Your task to perform on an android device: open chrome and create a bookmark for the current page Image 0: 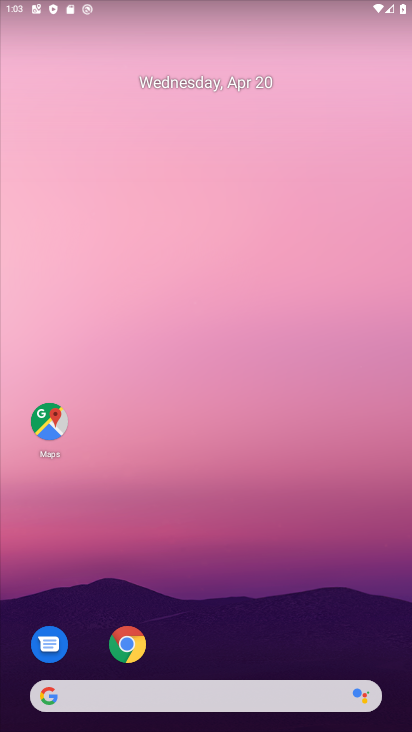
Step 0: click (143, 638)
Your task to perform on an android device: open chrome and create a bookmark for the current page Image 1: 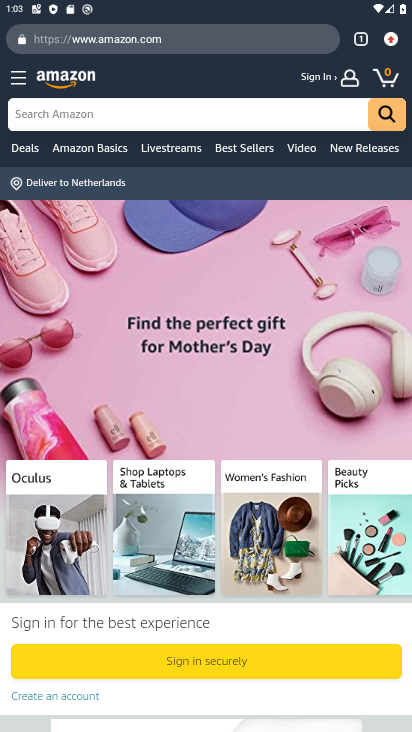
Step 1: click (385, 39)
Your task to perform on an android device: open chrome and create a bookmark for the current page Image 2: 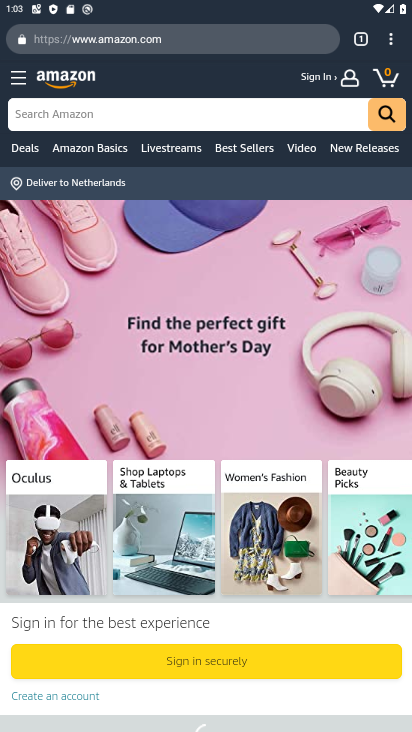
Step 2: click (393, 37)
Your task to perform on an android device: open chrome and create a bookmark for the current page Image 3: 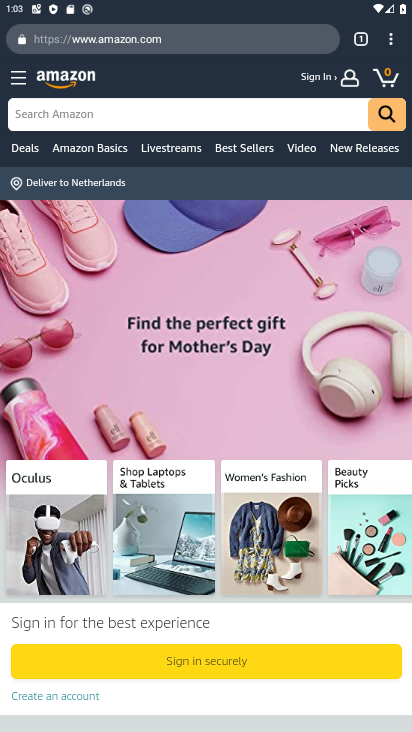
Step 3: click (391, 40)
Your task to perform on an android device: open chrome and create a bookmark for the current page Image 4: 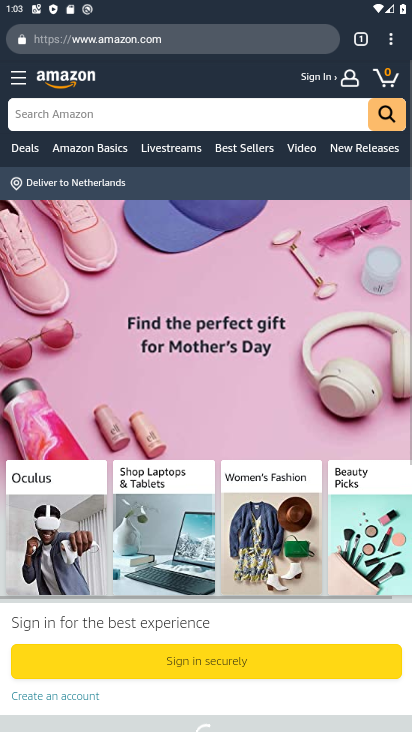
Step 4: click (391, 40)
Your task to perform on an android device: open chrome and create a bookmark for the current page Image 5: 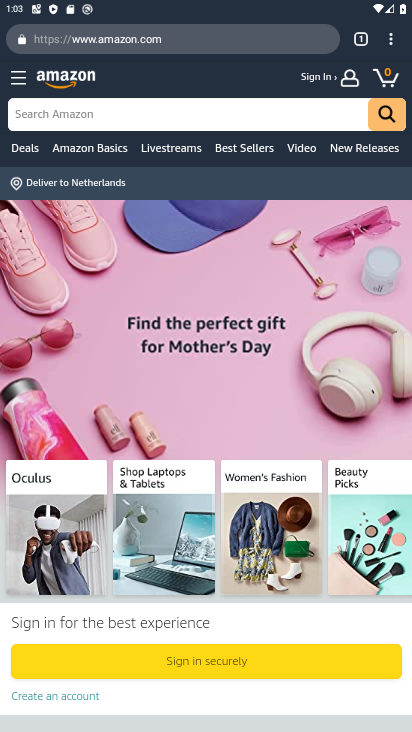
Step 5: click (391, 40)
Your task to perform on an android device: open chrome and create a bookmark for the current page Image 6: 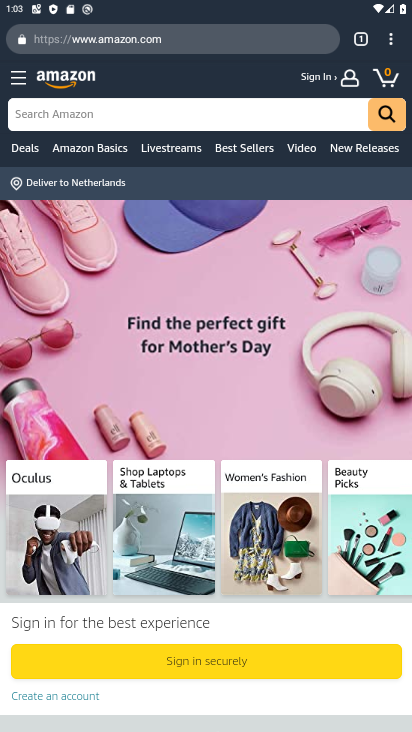
Step 6: click (388, 44)
Your task to perform on an android device: open chrome and create a bookmark for the current page Image 7: 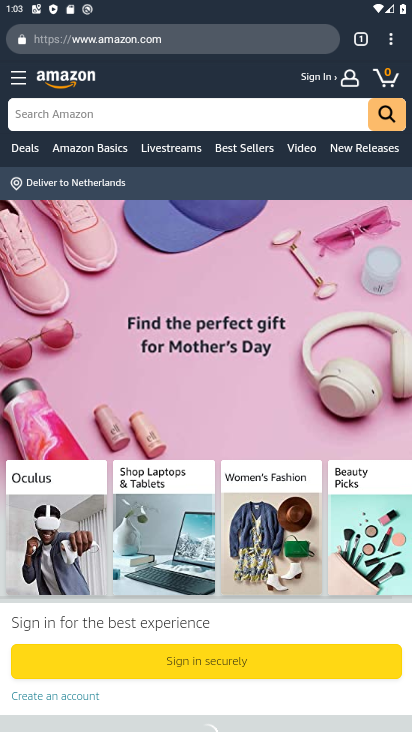
Step 7: task complete